Your task to perform on an android device: Go to battery settings Image 0: 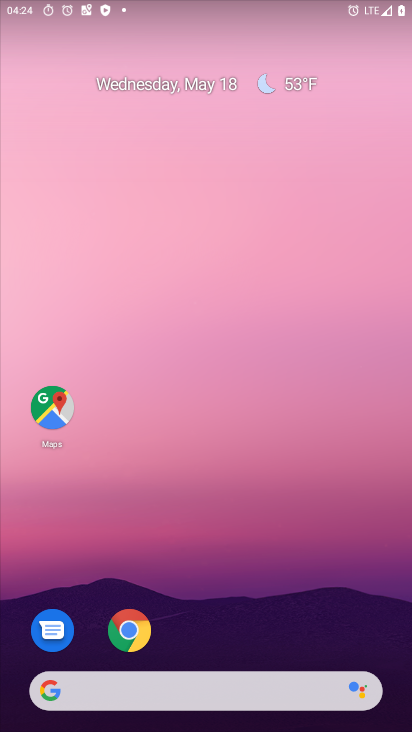
Step 0: drag from (221, 725) to (210, 129)
Your task to perform on an android device: Go to battery settings Image 1: 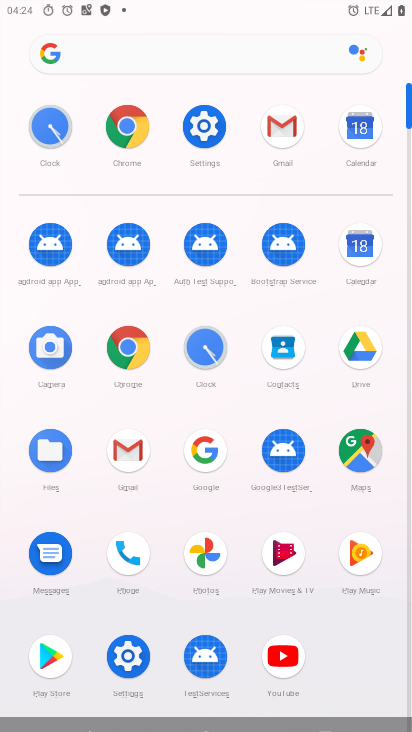
Step 1: click (211, 120)
Your task to perform on an android device: Go to battery settings Image 2: 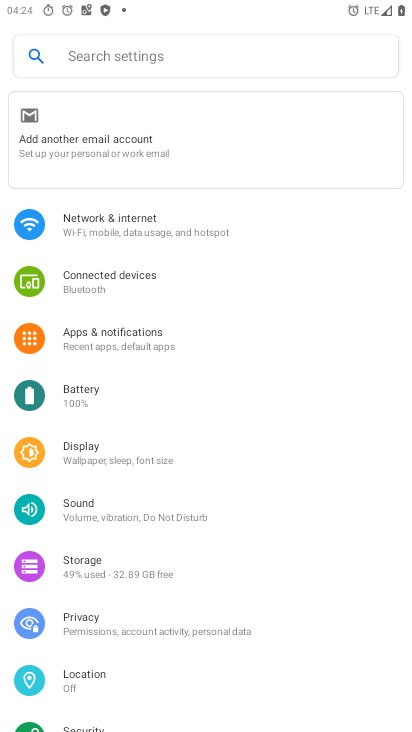
Step 2: click (68, 371)
Your task to perform on an android device: Go to battery settings Image 3: 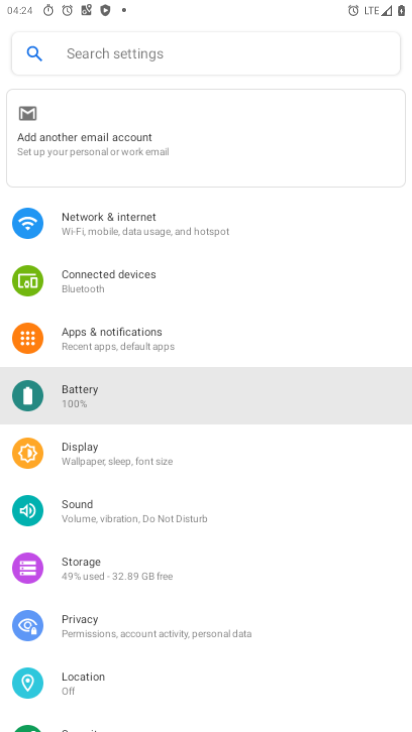
Step 3: click (67, 394)
Your task to perform on an android device: Go to battery settings Image 4: 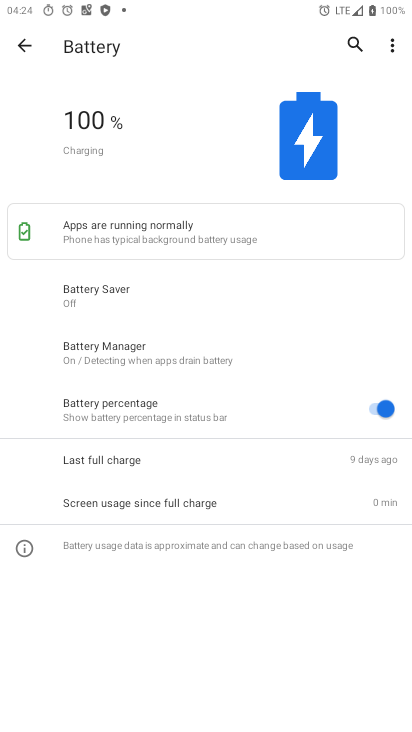
Step 4: task complete